Your task to perform on an android device: turn off javascript in the chrome app Image 0: 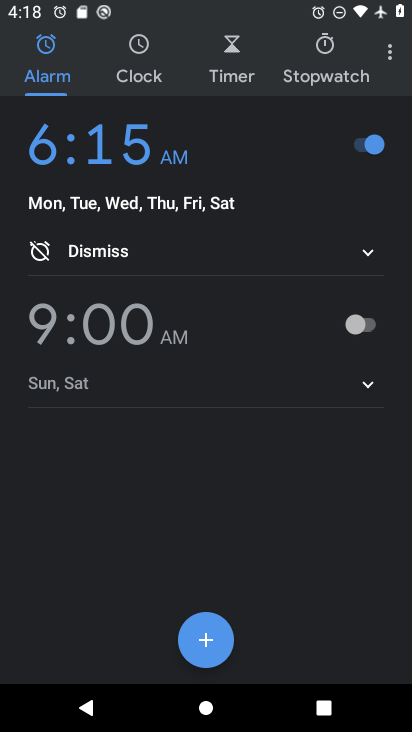
Step 0: press home button
Your task to perform on an android device: turn off javascript in the chrome app Image 1: 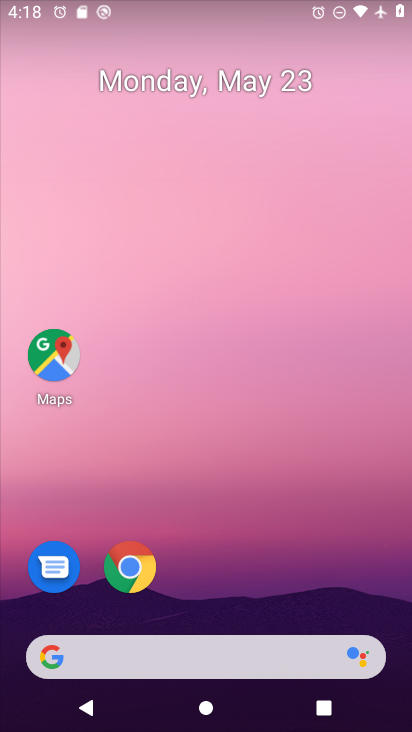
Step 1: click (128, 569)
Your task to perform on an android device: turn off javascript in the chrome app Image 2: 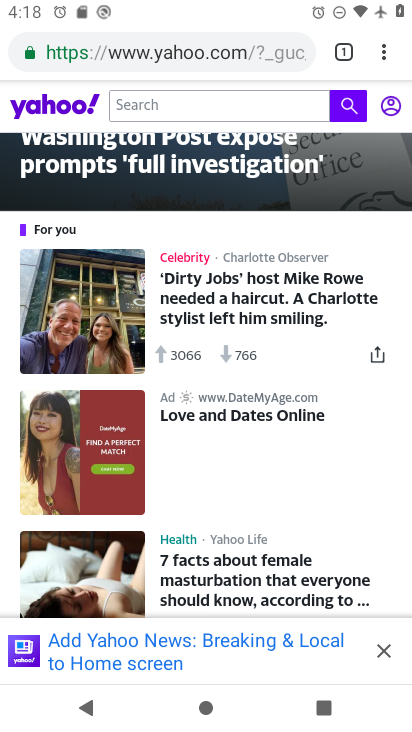
Step 2: click (381, 52)
Your task to perform on an android device: turn off javascript in the chrome app Image 3: 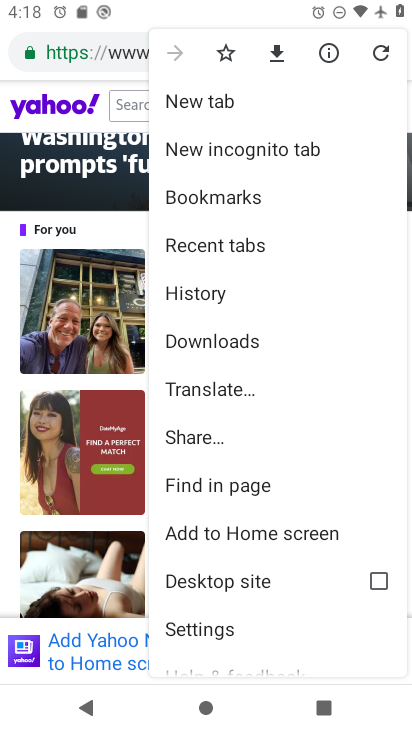
Step 3: click (194, 627)
Your task to perform on an android device: turn off javascript in the chrome app Image 4: 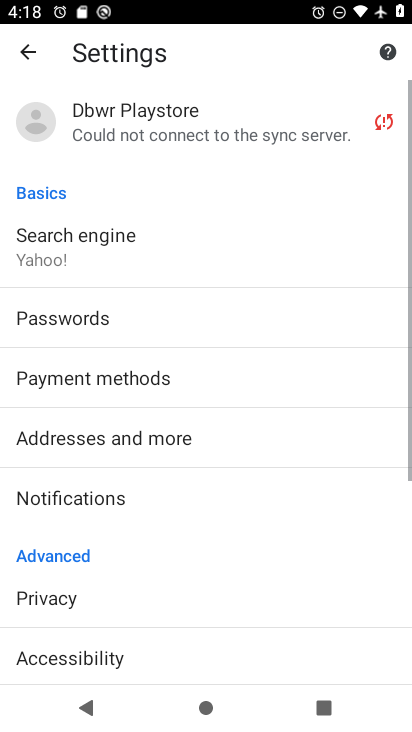
Step 4: drag from (247, 573) to (247, 269)
Your task to perform on an android device: turn off javascript in the chrome app Image 5: 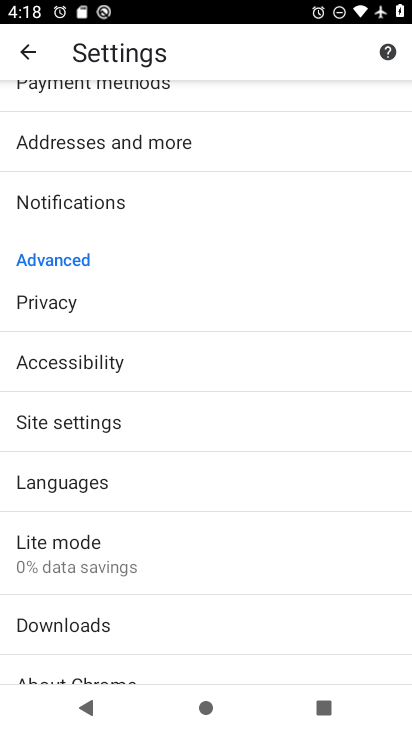
Step 5: click (32, 420)
Your task to perform on an android device: turn off javascript in the chrome app Image 6: 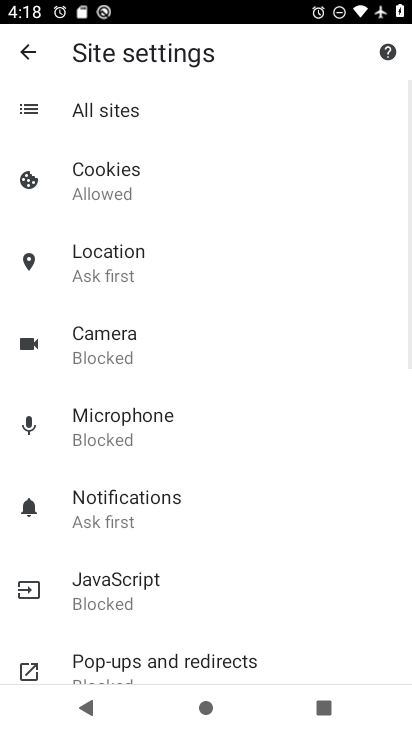
Step 6: click (122, 582)
Your task to perform on an android device: turn off javascript in the chrome app Image 7: 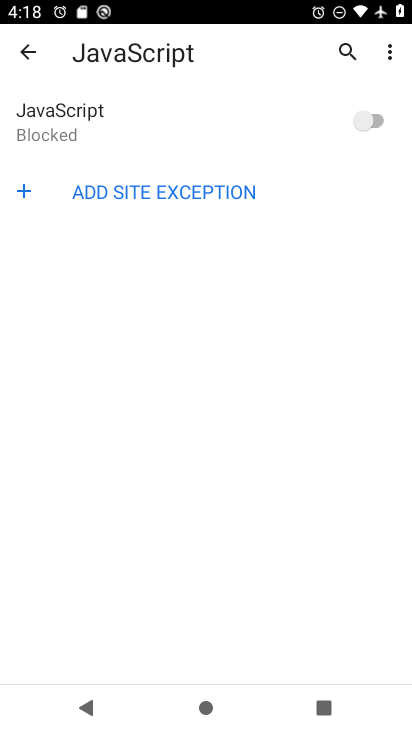
Step 7: task complete